Your task to perform on an android device: turn notification dots off Image 0: 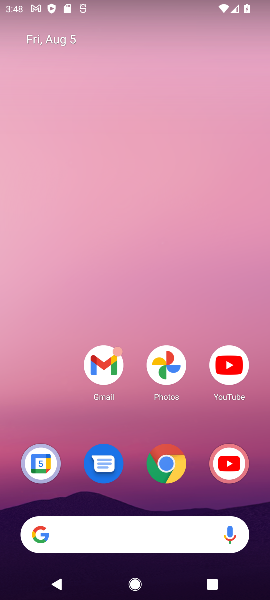
Step 0: drag from (148, 269) to (170, 189)
Your task to perform on an android device: turn notification dots off Image 1: 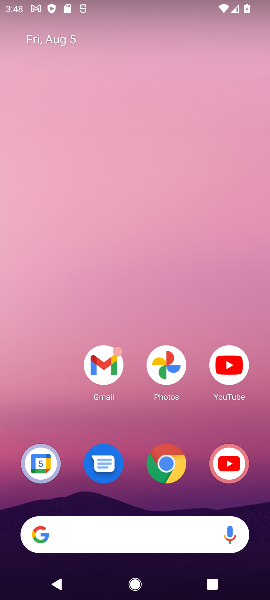
Step 1: drag from (134, 474) to (132, 85)
Your task to perform on an android device: turn notification dots off Image 2: 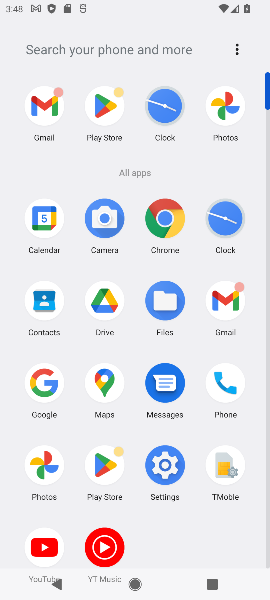
Step 2: click (168, 455)
Your task to perform on an android device: turn notification dots off Image 3: 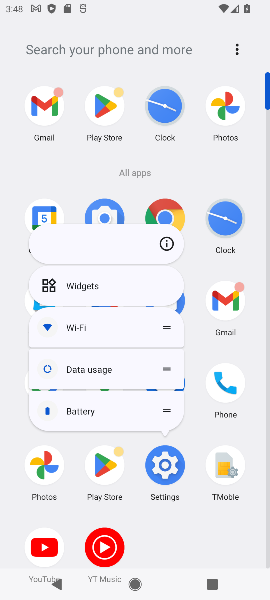
Step 3: click (164, 237)
Your task to perform on an android device: turn notification dots off Image 4: 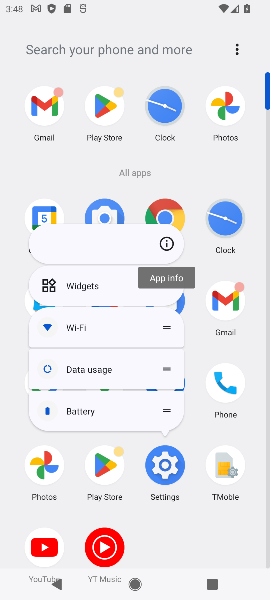
Step 4: click (167, 241)
Your task to perform on an android device: turn notification dots off Image 5: 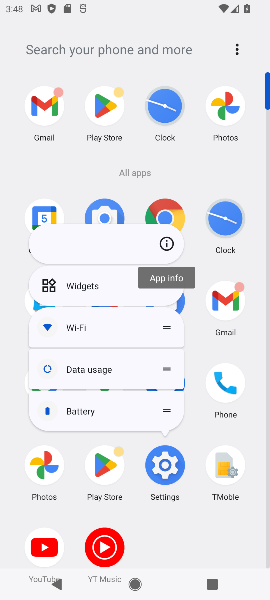
Step 5: click (167, 240)
Your task to perform on an android device: turn notification dots off Image 6: 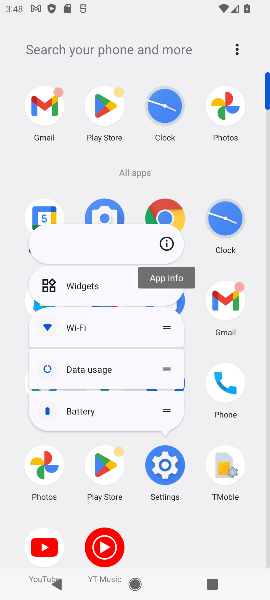
Step 6: click (160, 238)
Your task to perform on an android device: turn notification dots off Image 7: 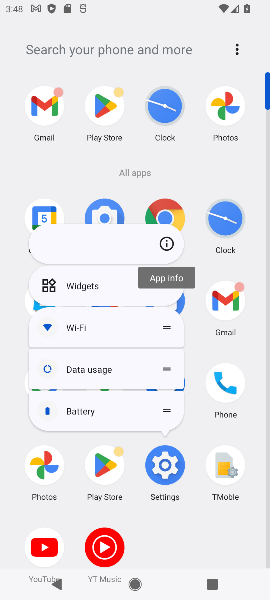
Step 7: click (158, 238)
Your task to perform on an android device: turn notification dots off Image 8: 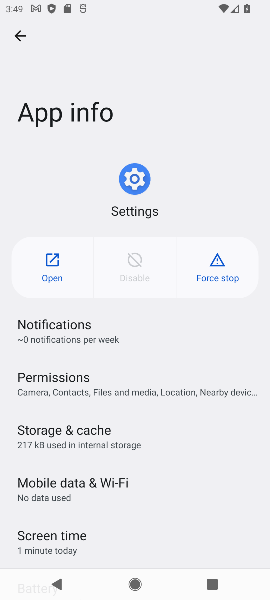
Step 8: click (55, 261)
Your task to perform on an android device: turn notification dots off Image 9: 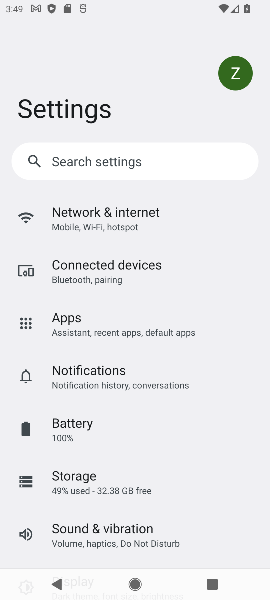
Step 9: click (99, 370)
Your task to perform on an android device: turn notification dots off Image 10: 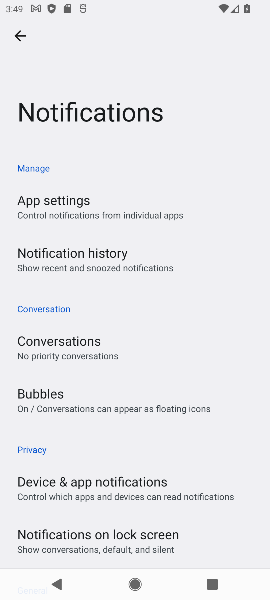
Step 10: drag from (127, 504) to (188, 219)
Your task to perform on an android device: turn notification dots off Image 11: 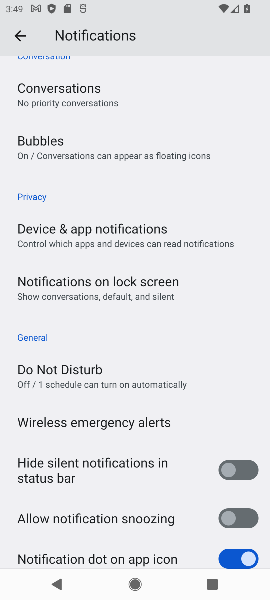
Step 11: click (217, 554)
Your task to perform on an android device: turn notification dots off Image 12: 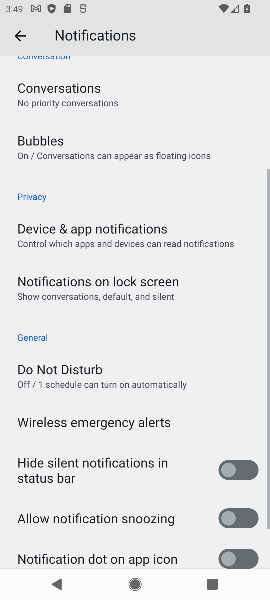
Step 12: task complete